Your task to perform on an android device: change the clock display to show seconds Image 0: 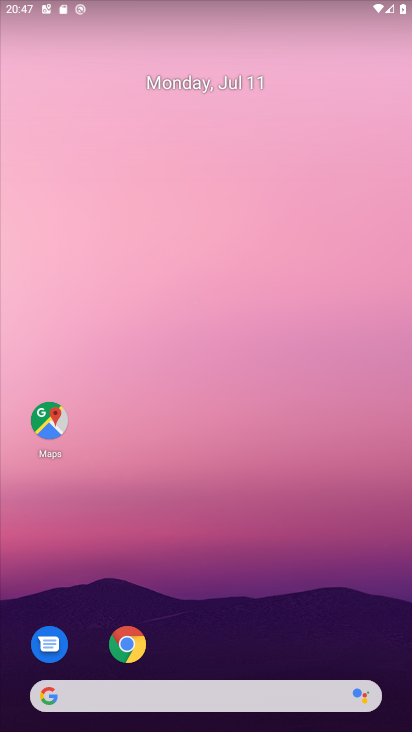
Step 0: drag from (248, 634) to (206, 112)
Your task to perform on an android device: change the clock display to show seconds Image 1: 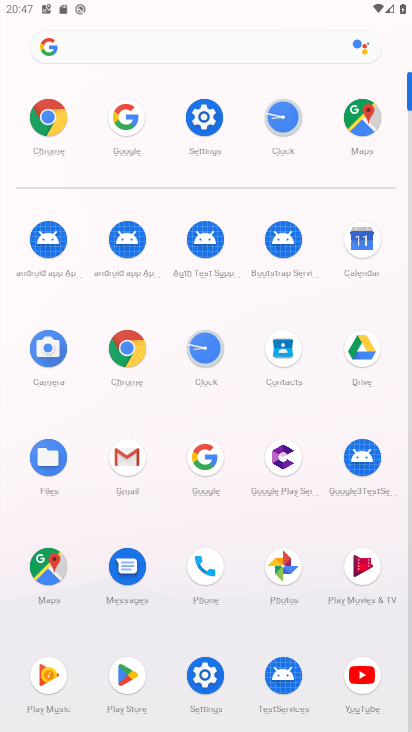
Step 1: click (198, 338)
Your task to perform on an android device: change the clock display to show seconds Image 2: 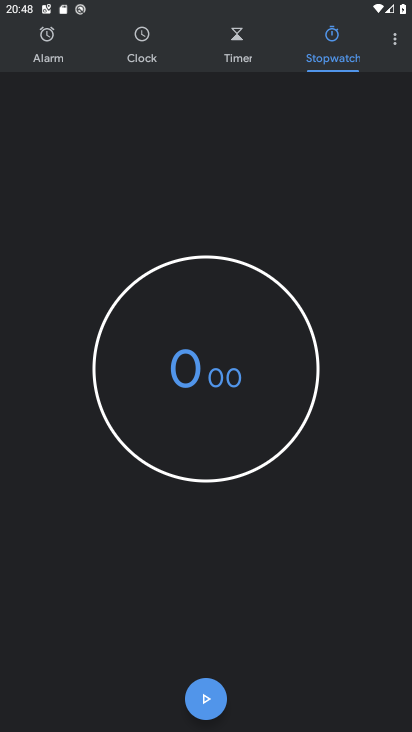
Step 2: click (399, 32)
Your task to perform on an android device: change the clock display to show seconds Image 3: 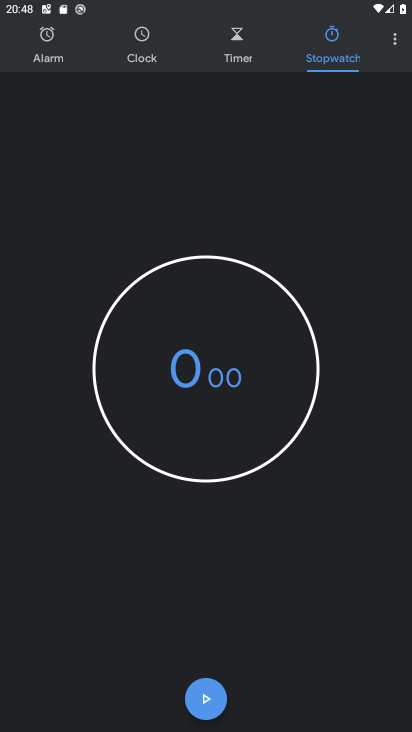
Step 3: click (405, 38)
Your task to perform on an android device: change the clock display to show seconds Image 4: 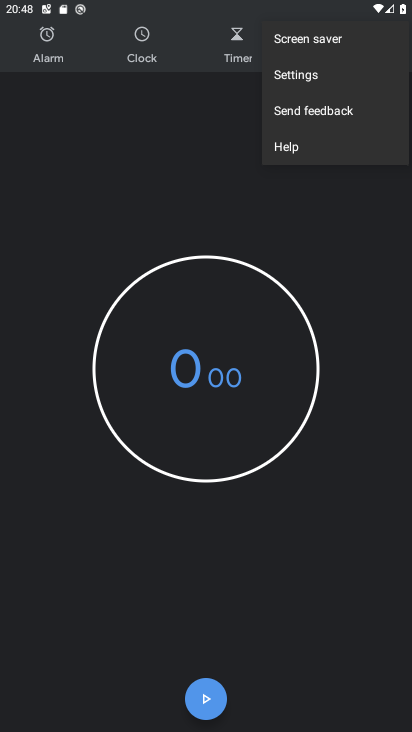
Step 4: click (310, 77)
Your task to perform on an android device: change the clock display to show seconds Image 5: 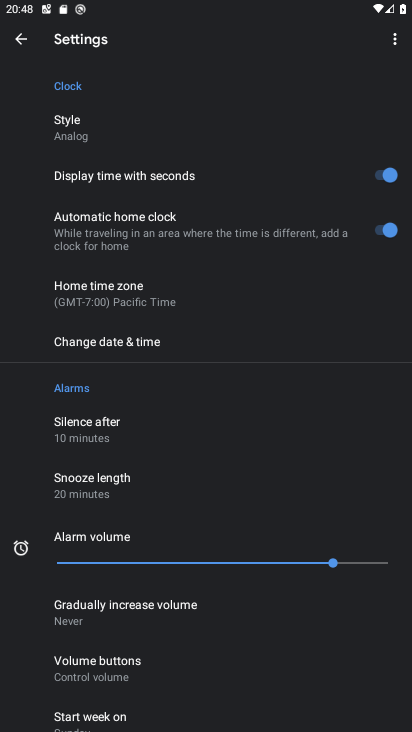
Step 5: task complete